Your task to perform on an android device: turn off airplane mode Image 0: 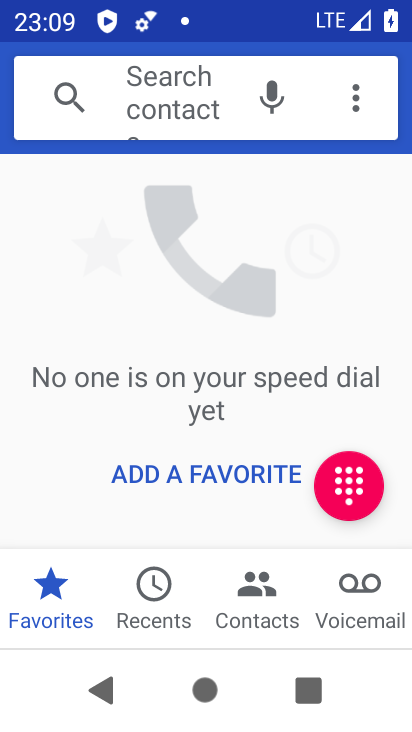
Step 0: press home button
Your task to perform on an android device: turn off airplane mode Image 1: 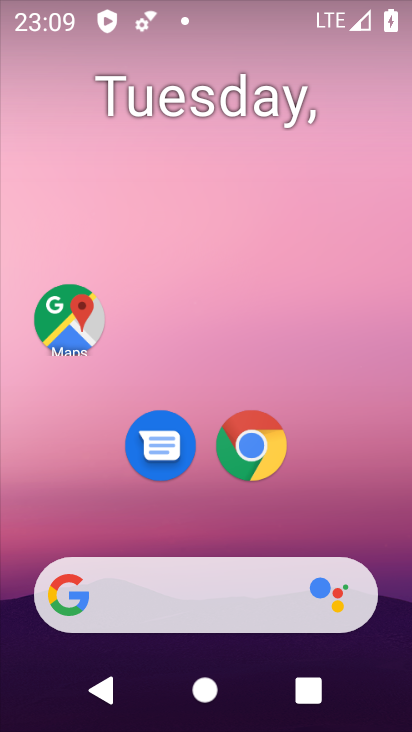
Step 1: drag from (272, 536) to (290, 52)
Your task to perform on an android device: turn off airplane mode Image 2: 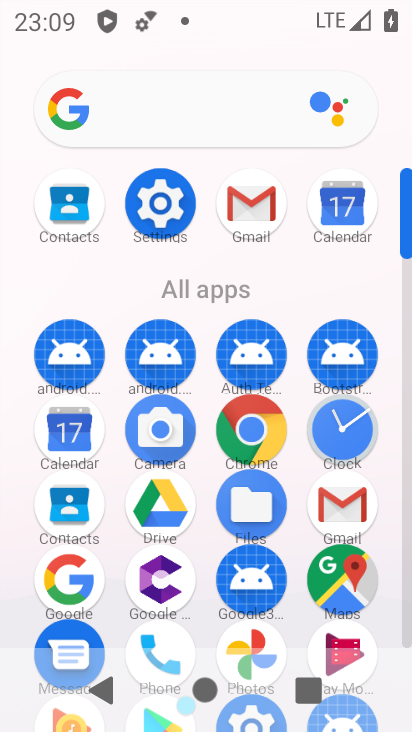
Step 2: click (149, 204)
Your task to perform on an android device: turn off airplane mode Image 3: 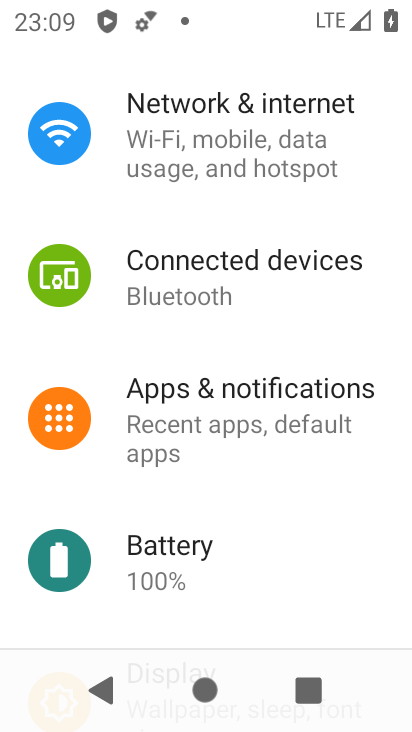
Step 3: click (251, 162)
Your task to perform on an android device: turn off airplane mode Image 4: 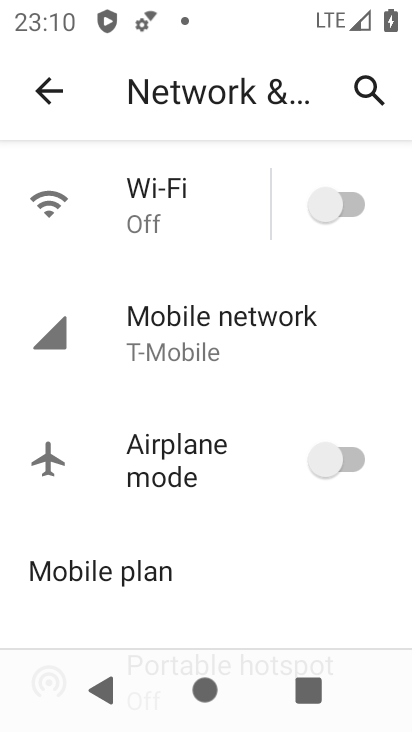
Step 4: task complete